Your task to perform on an android device: install app "Facebook Lite" Image 0: 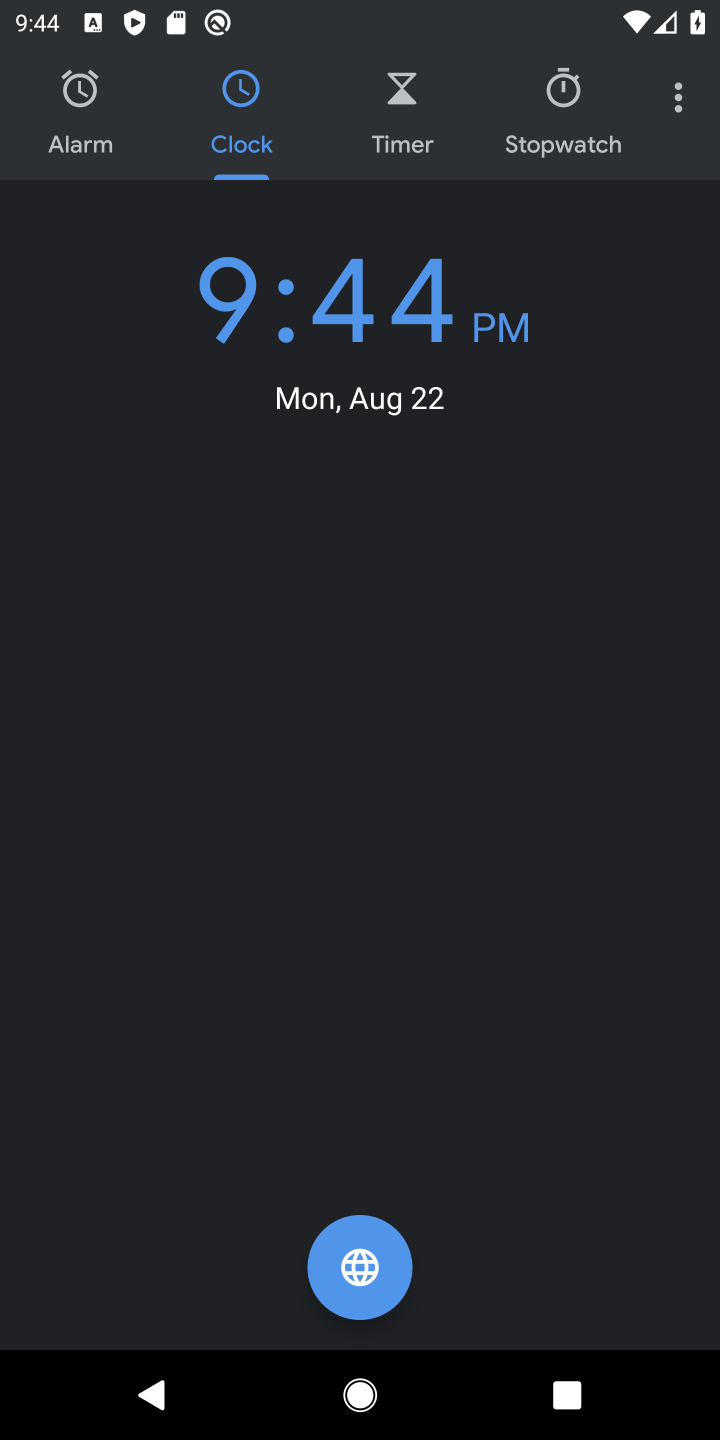
Step 0: press home button
Your task to perform on an android device: install app "Facebook Lite" Image 1: 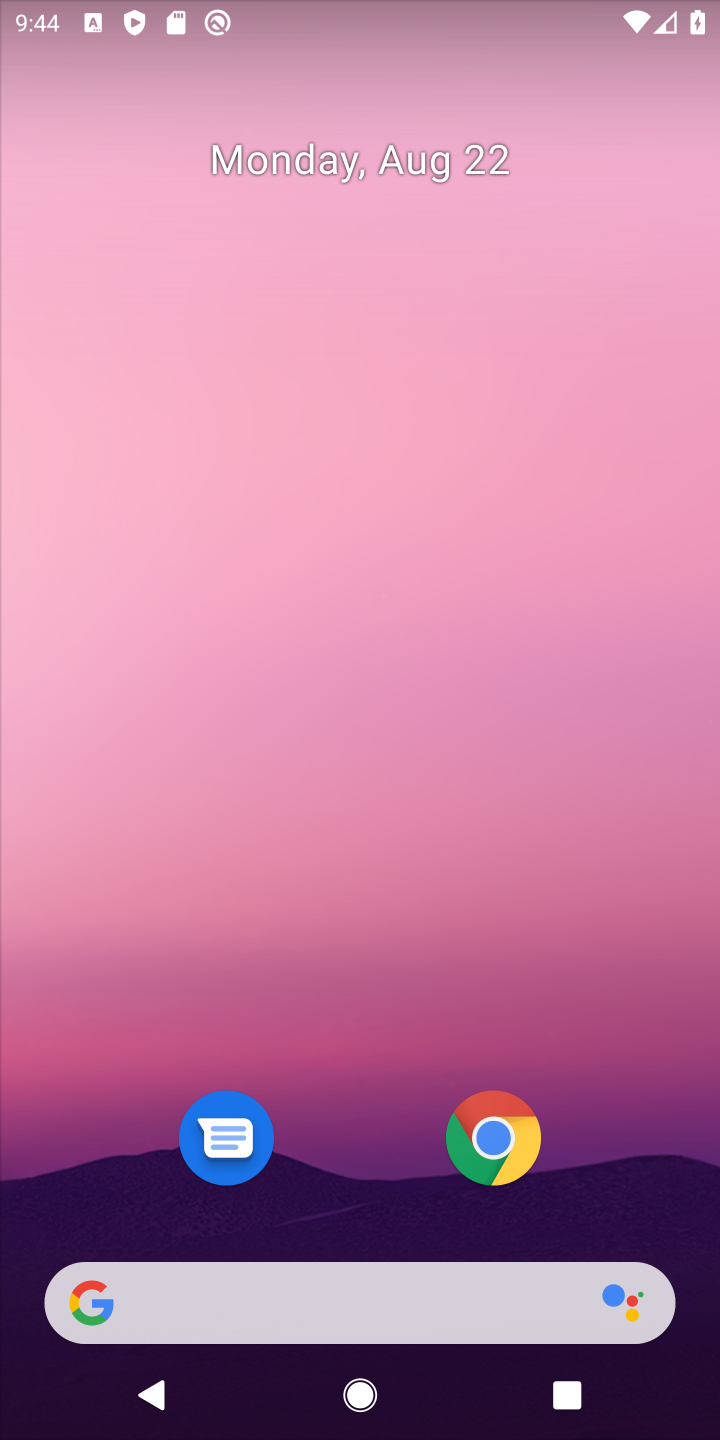
Step 1: drag from (365, 1182) to (503, 7)
Your task to perform on an android device: install app "Facebook Lite" Image 2: 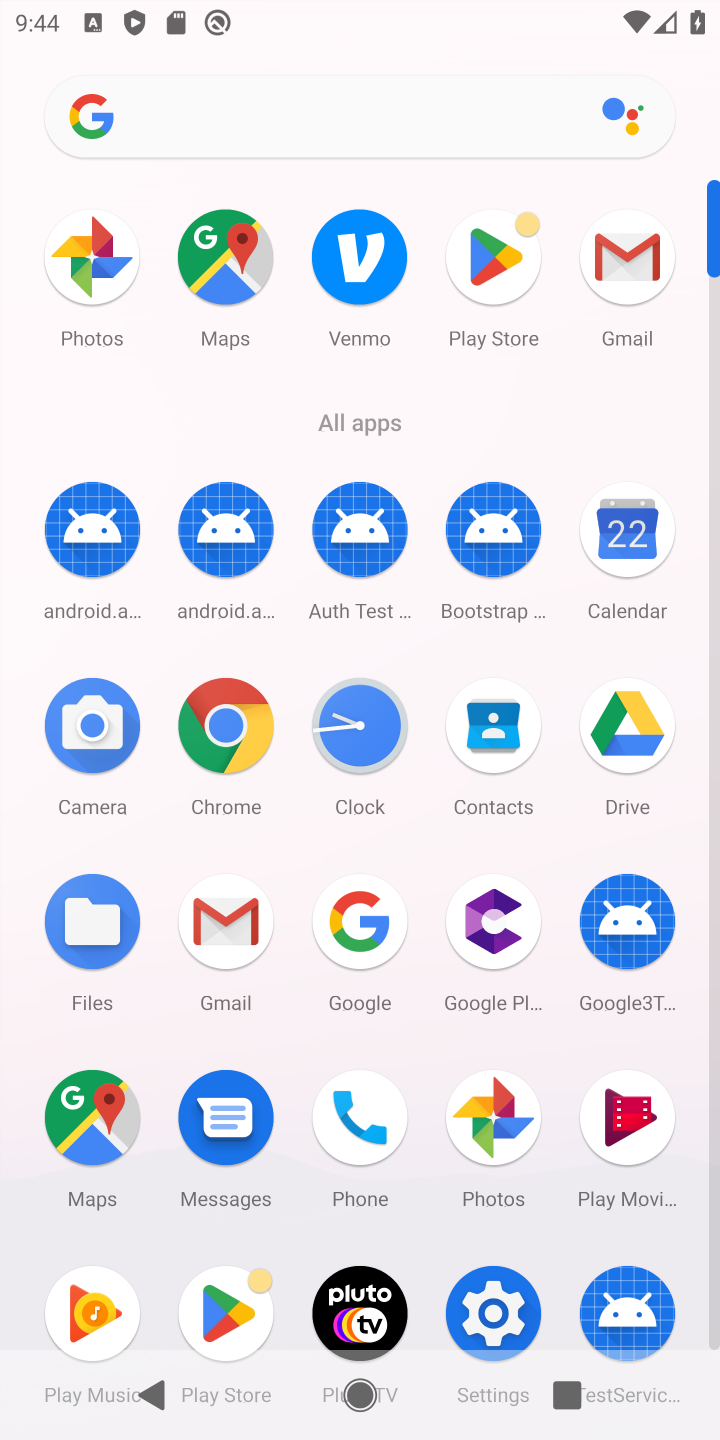
Step 2: click (490, 249)
Your task to perform on an android device: install app "Facebook Lite" Image 3: 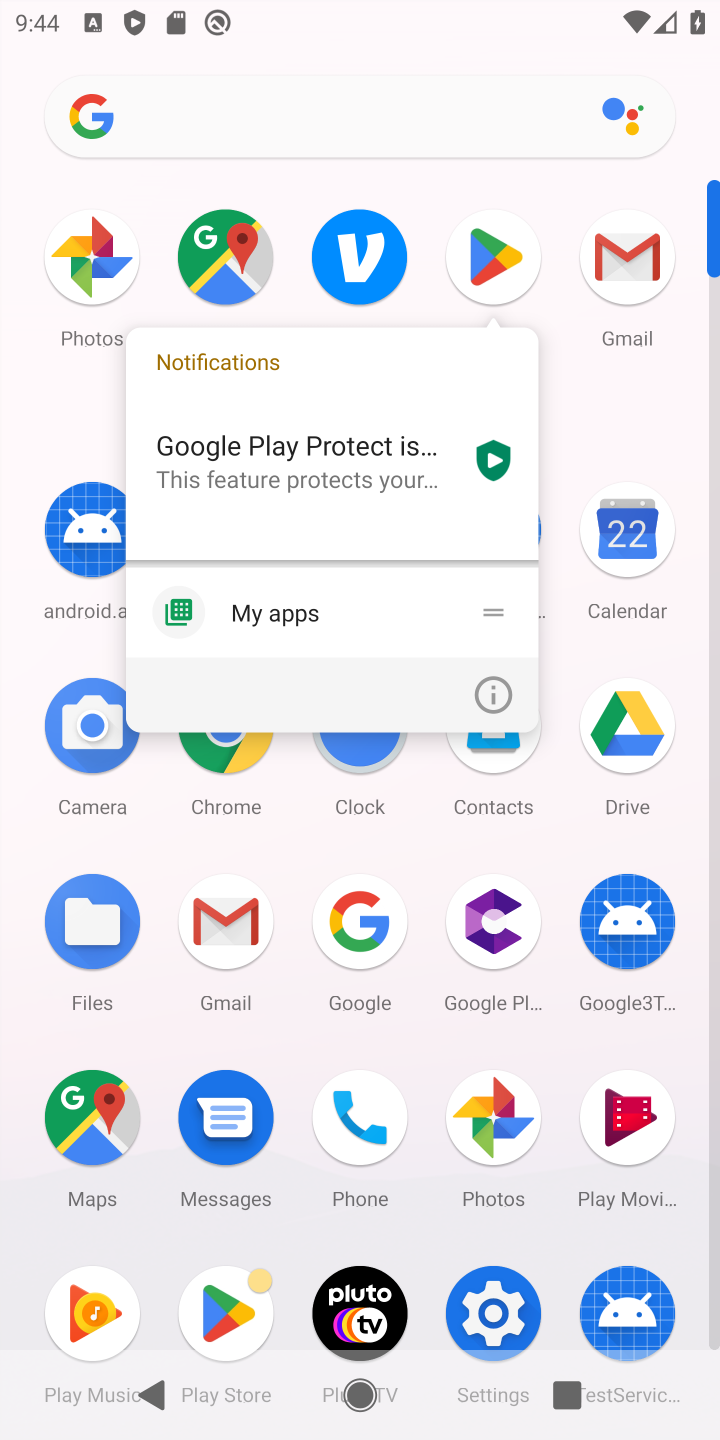
Step 3: click (490, 249)
Your task to perform on an android device: install app "Facebook Lite" Image 4: 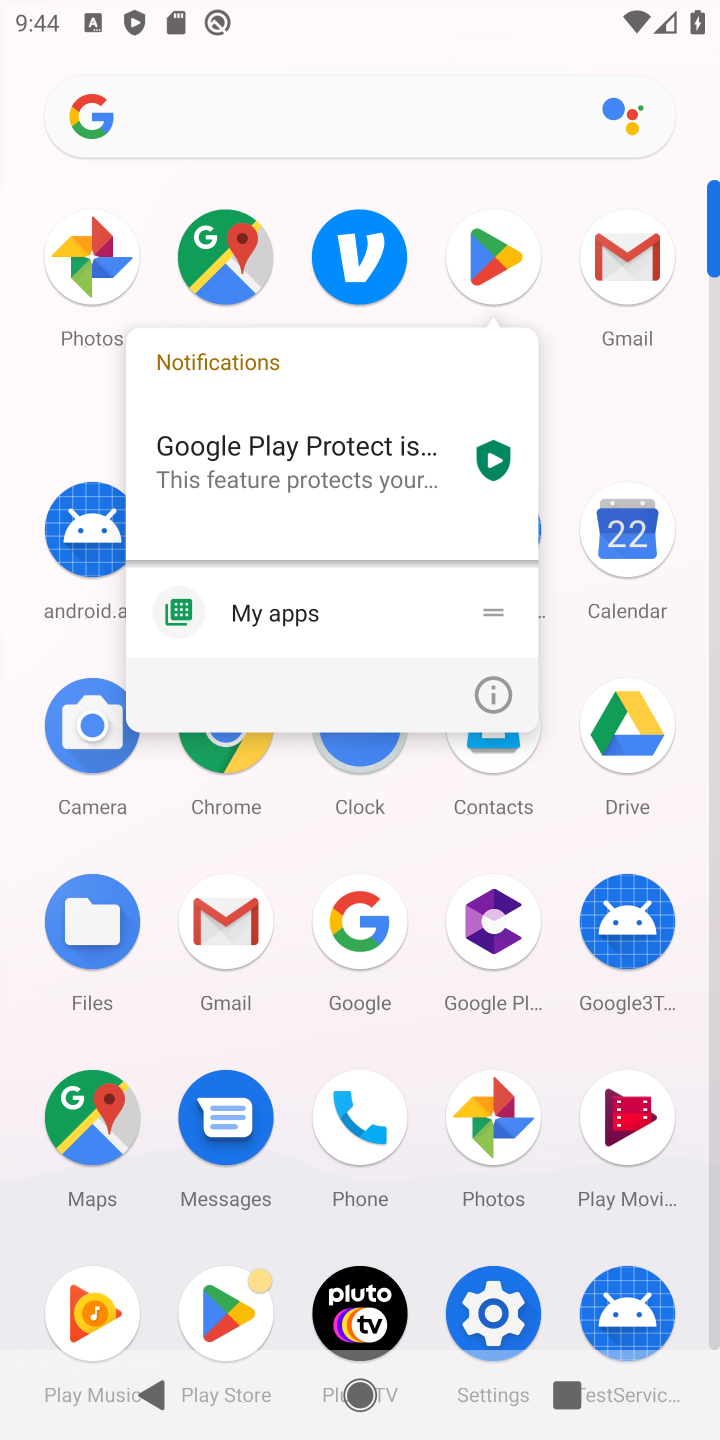
Step 4: click (491, 247)
Your task to perform on an android device: install app "Facebook Lite" Image 5: 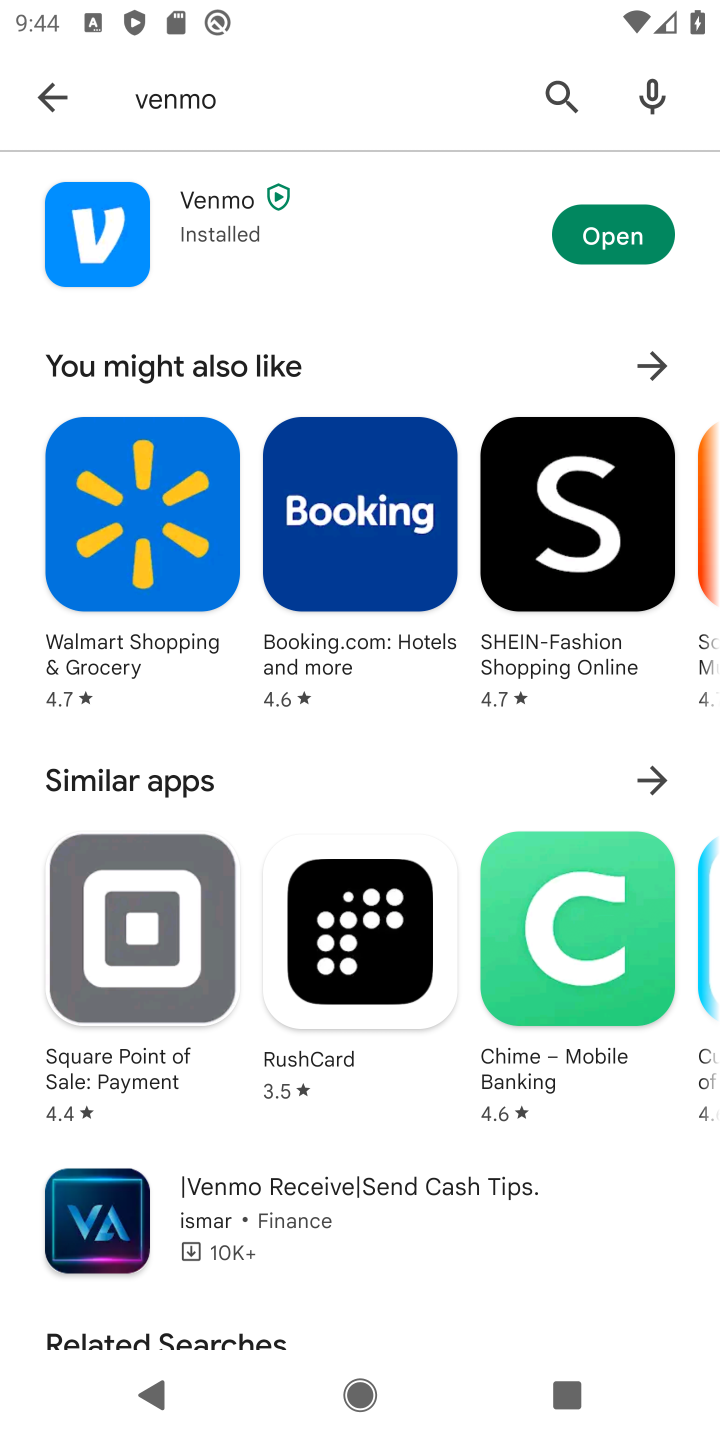
Step 5: click (569, 88)
Your task to perform on an android device: install app "Facebook Lite" Image 6: 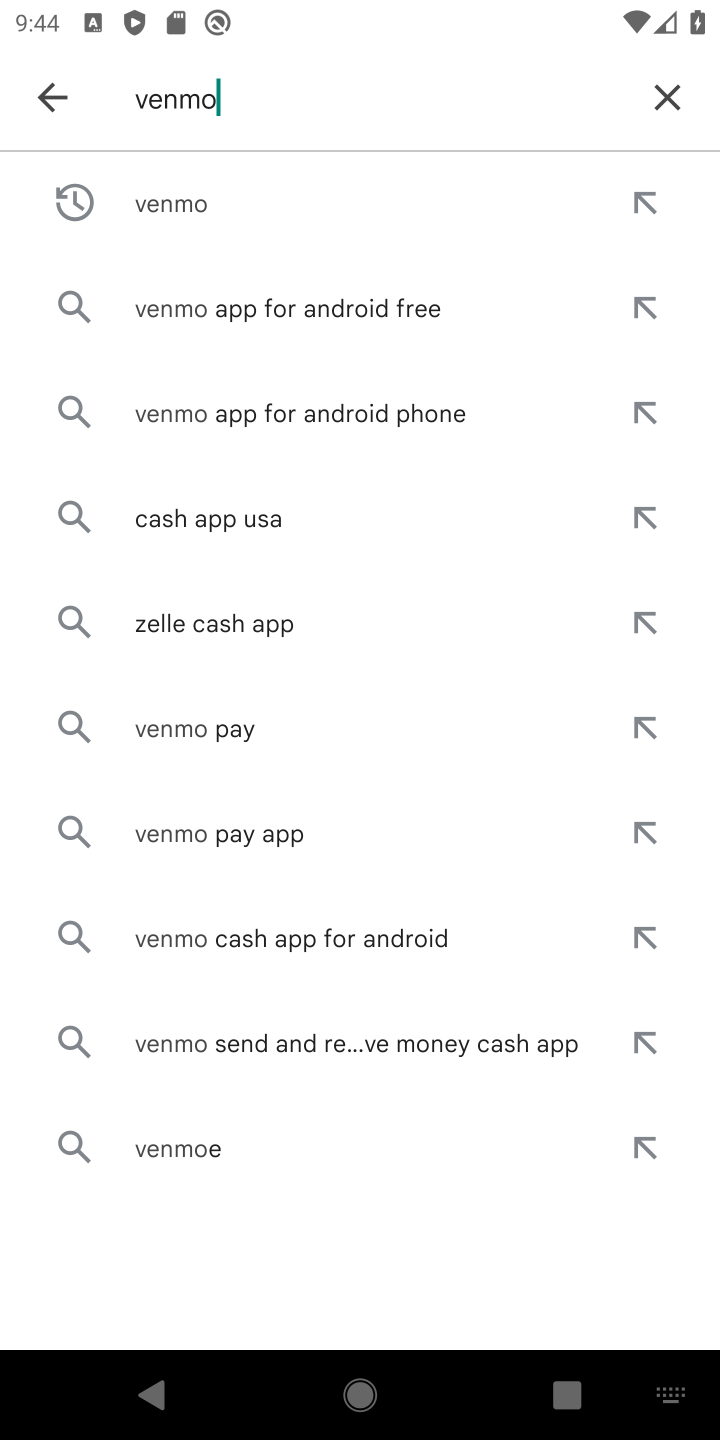
Step 6: click (657, 102)
Your task to perform on an android device: install app "Facebook Lite" Image 7: 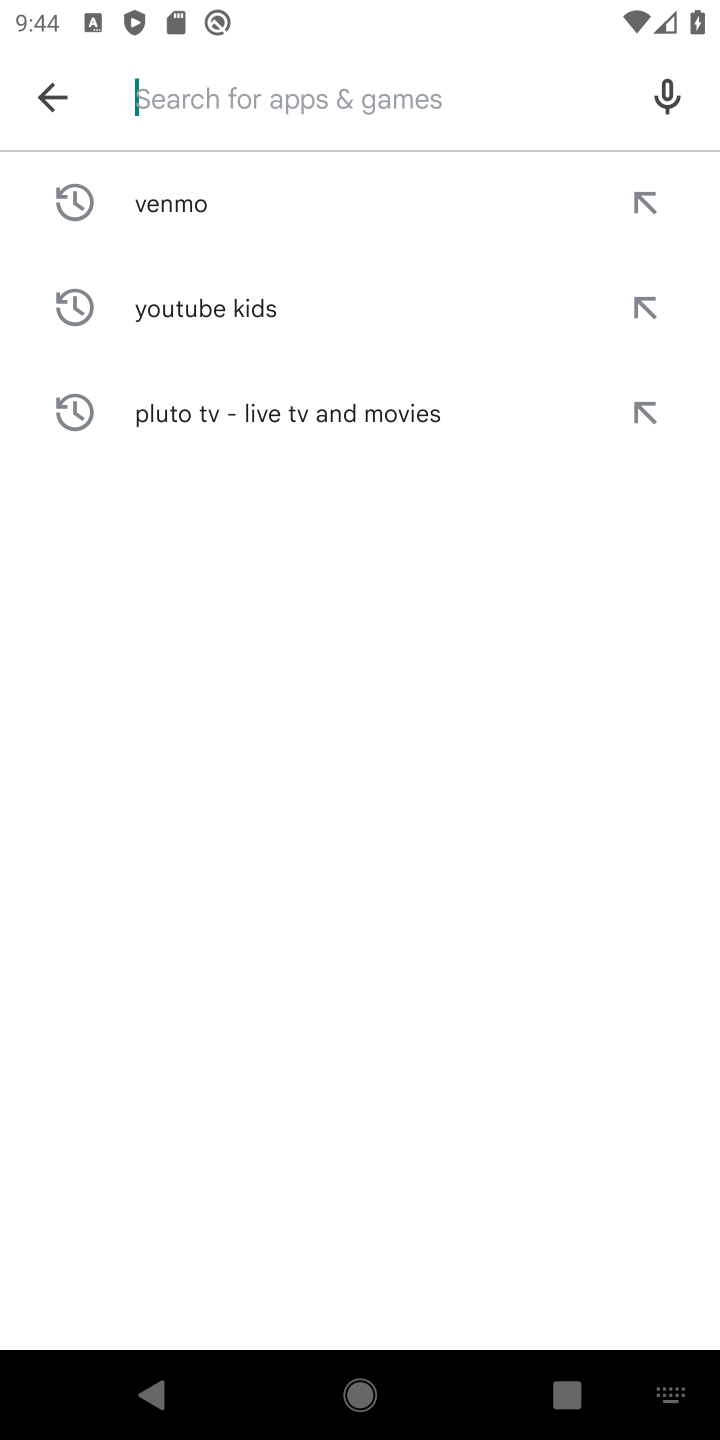
Step 7: type "Facebook Lite"
Your task to perform on an android device: install app "Facebook Lite" Image 8: 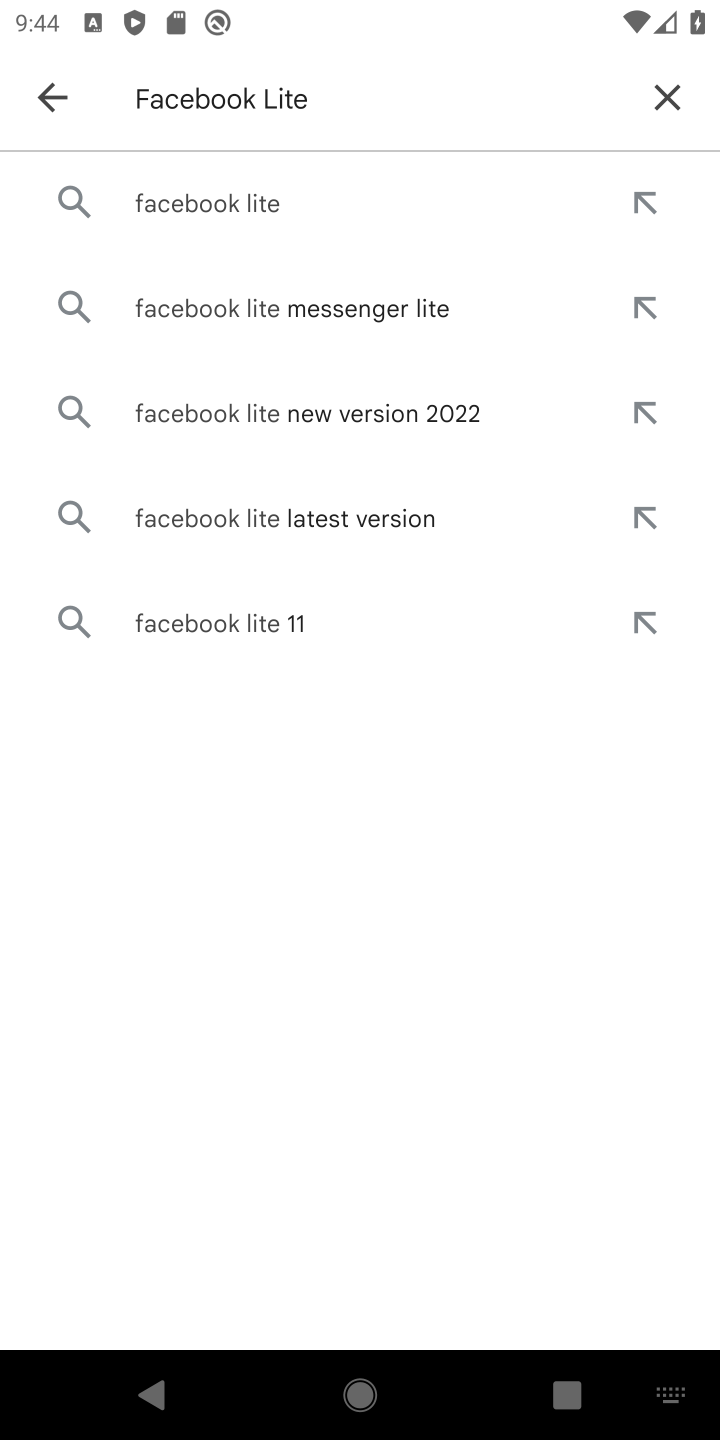
Step 8: click (221, 222)
Your task to perform on an android device: install app "Facebook Lite" Image 9: 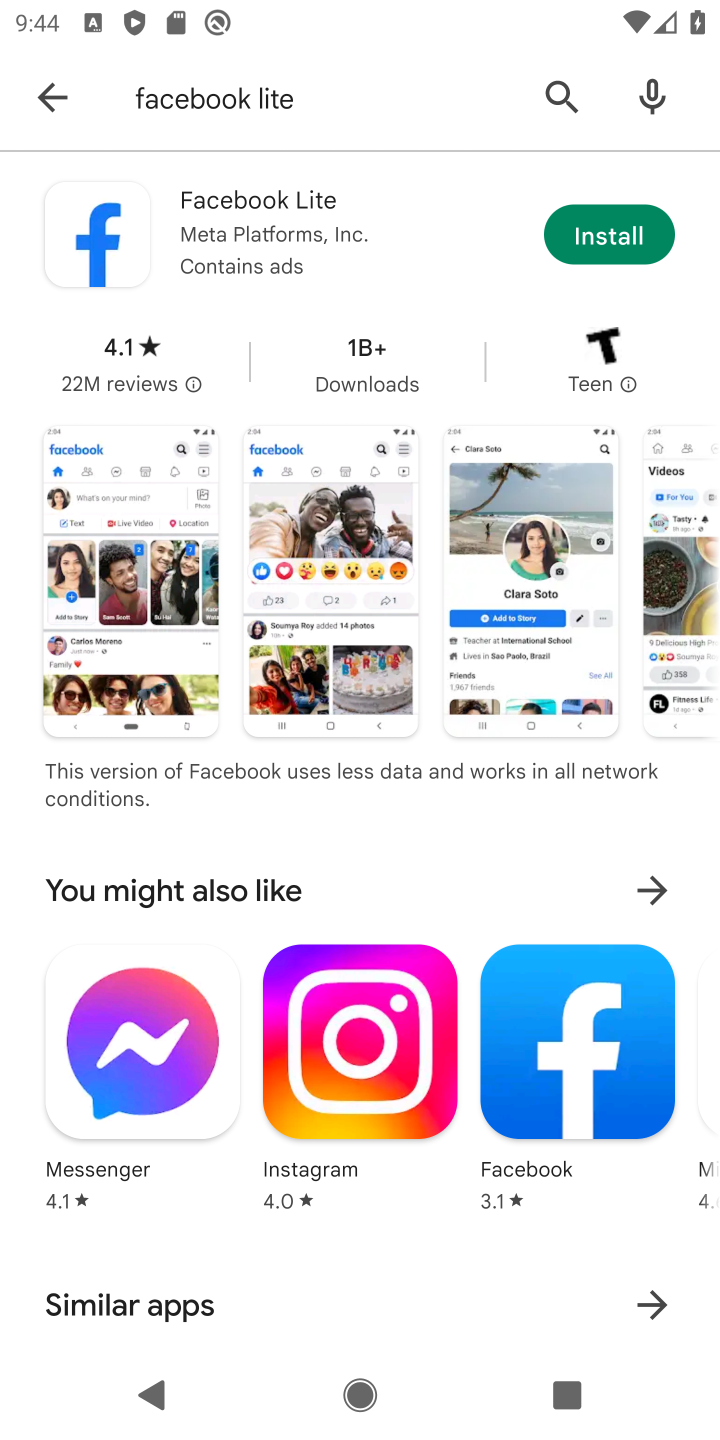
Step 9: click (616, 227)
Your task to perform on an android device: install app "Facebook Lite" Image 10: 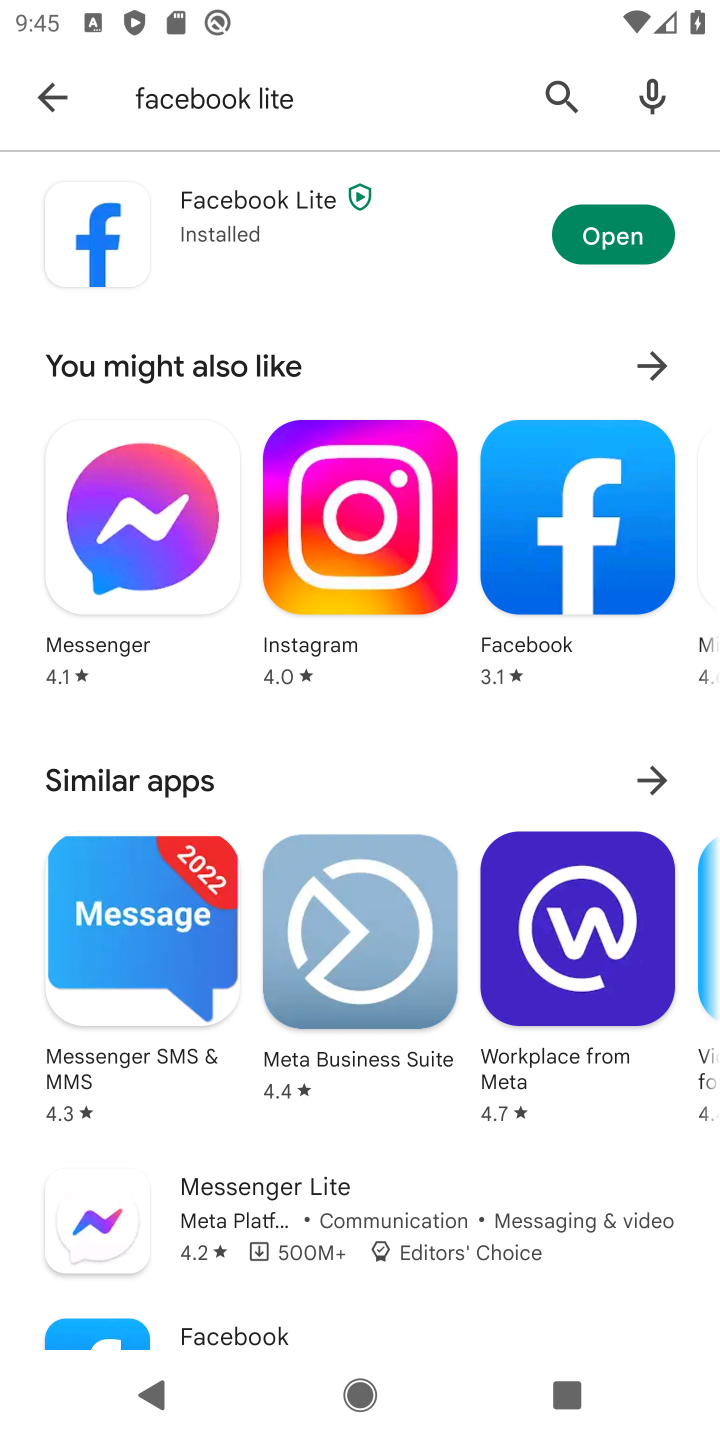
Step 10: click (628, 239)
Your task to perform on an android device: install app "Facebook Lite" Image 11: 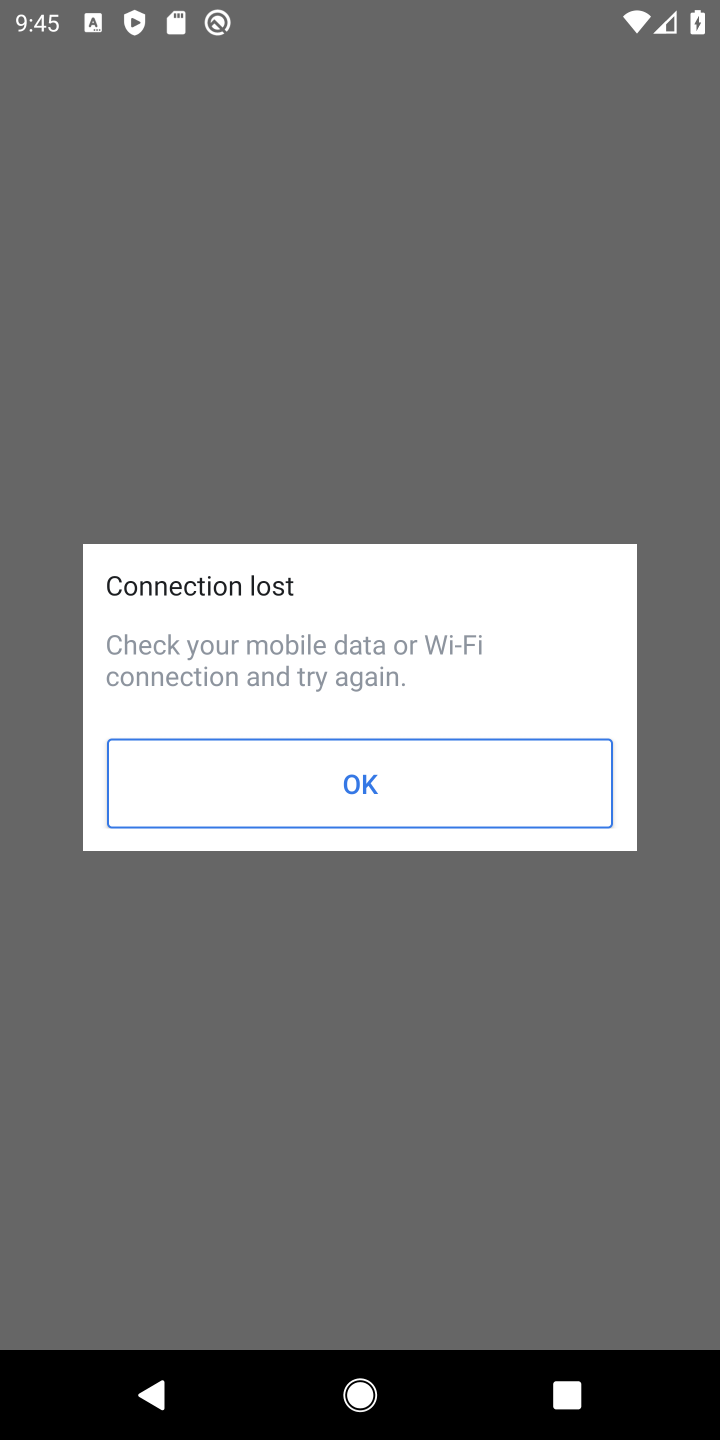
Step 11: task complete